Your task to perform on an android device: Open Google Chrome Image 0: 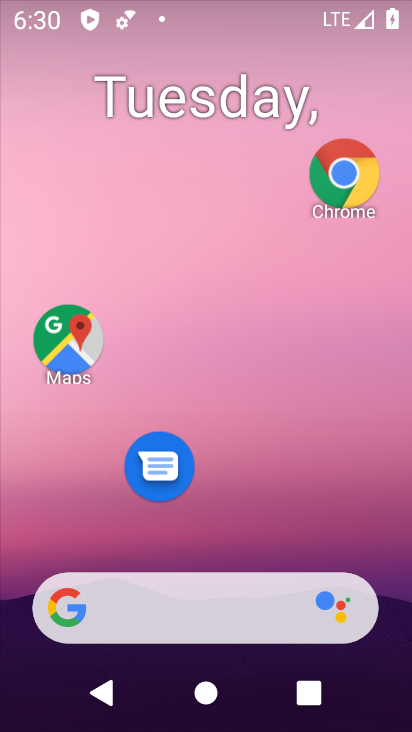
Step 0: press home button
Your task to perform on an android device: Open Google Chrome Image 1: 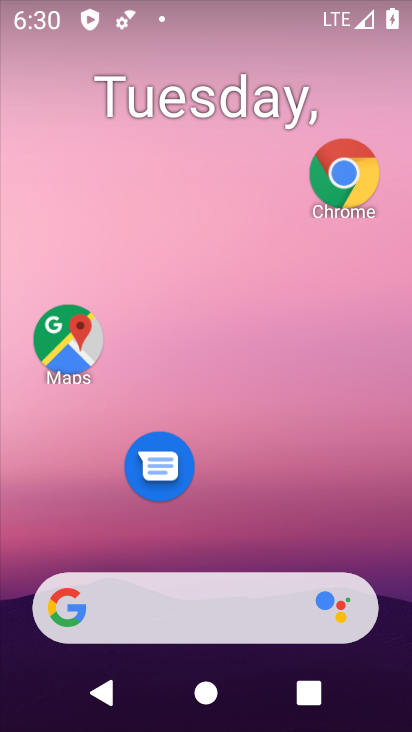
Step 1: click (371, 186)
Your task to perform on an android device: Open Google Chrome Image 2: 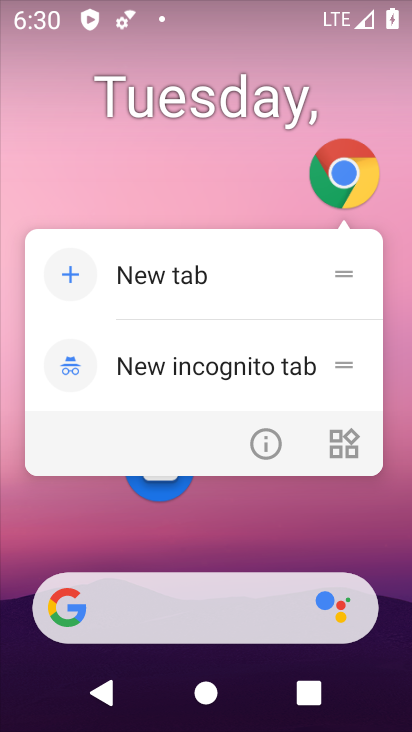
Step 2: click (350, 192)
Your task to perform on an android device: Open Google Chrome Image 3: 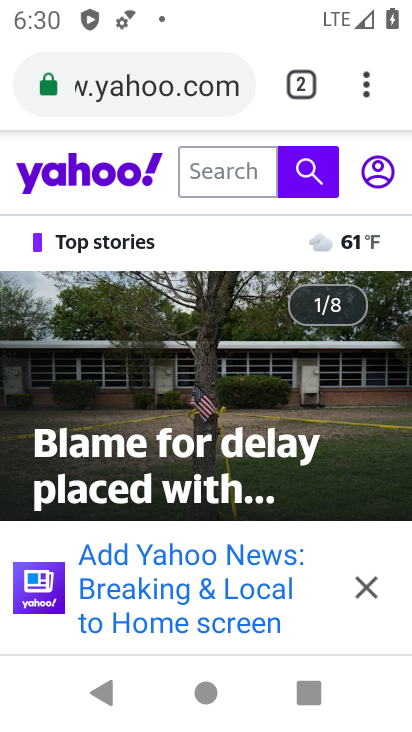
Step 3: task complete